Your task to perform on an android device: Open battery settings Image 0: 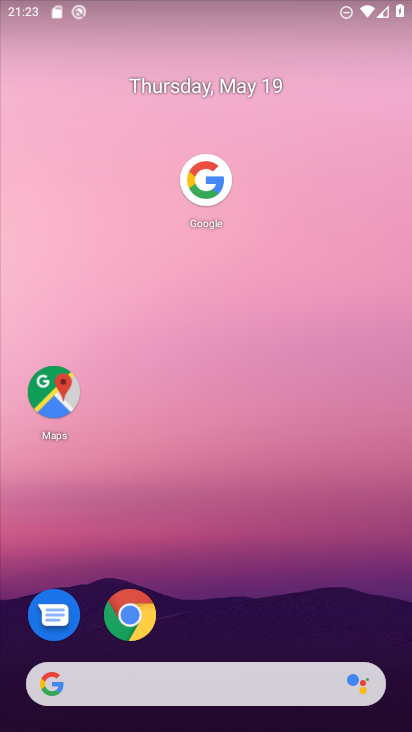
Step 0: drag from (237, 591) to (213, 58)
Your task to perform on an android device: Open battery settings Image 1: 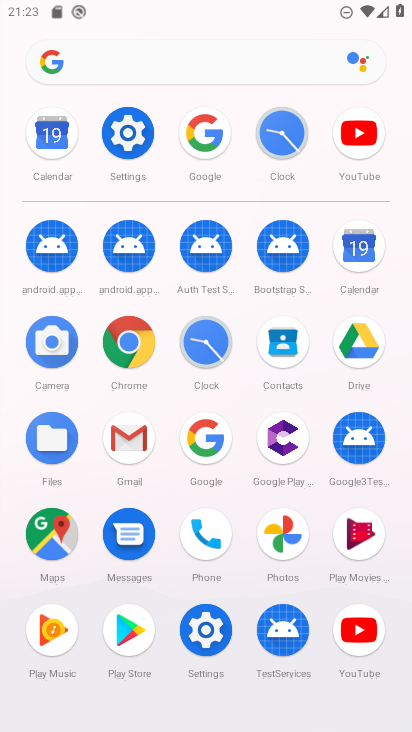
Step 1: click (125, 128)
Your task to perform on an android device: Open battery settings Image 2: 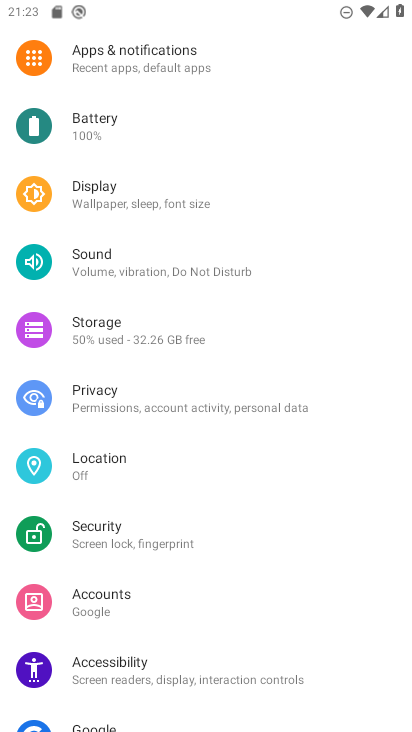
Step 2: click (125, 128)
Your task to perform on an android device: Open battery settings Image 3: 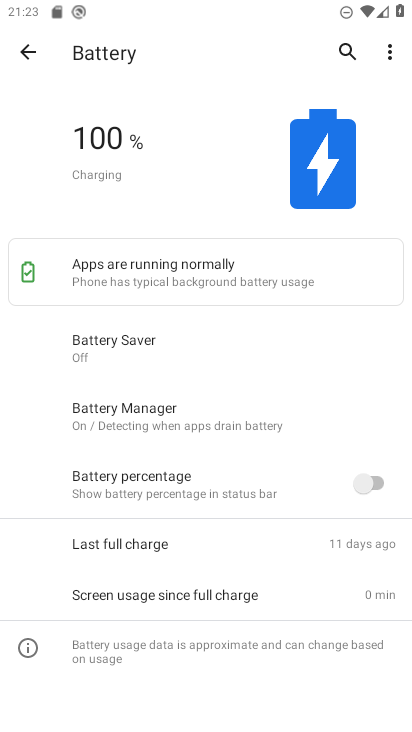
Step 3: task complete